Your task to perform on an android device: Open Chrome and go to the settings page Image 0: 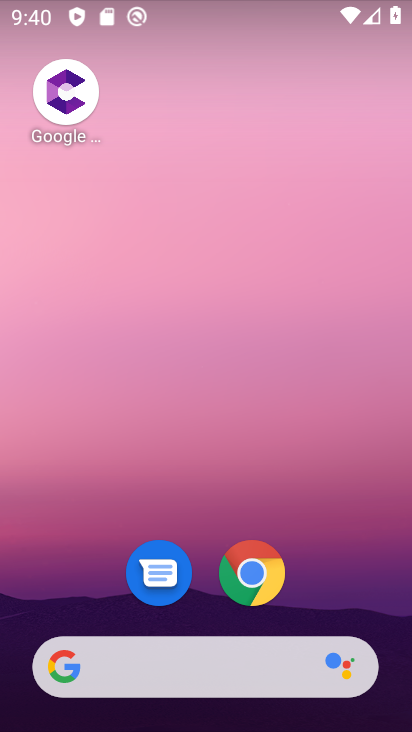
Step 0: task complete